Your task to perform on an android device: Go to calendar. Show me events next week Image 0: 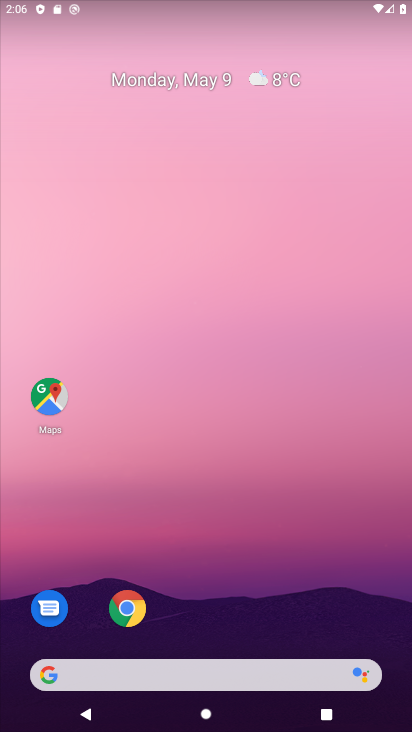
Step 0: drag from (210, 665) to (241, 417)
Your task to perform on an android device: Go to calendar. Show me events next week Image 1: 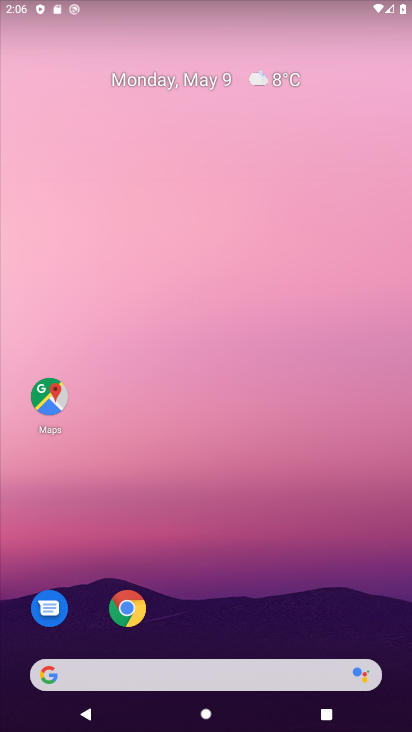
Step 1: drag from (199, 655) to (261, 173)
Your task to perform on an android device: Go to calendar. Show me events next week Image 2: 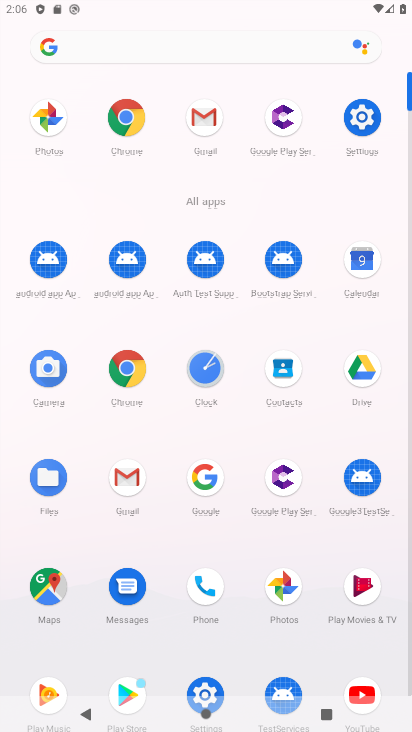
Step 2: drag from (135, 657) to (181, 525)
Your task to perform on an android device: Go to calendar. Show me events next week Image 3: 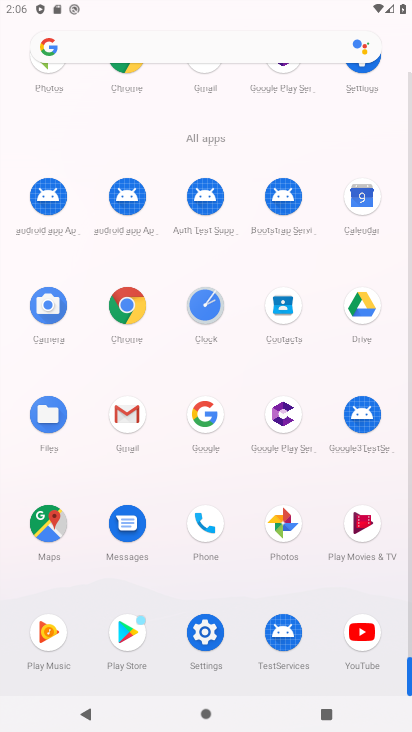
Step 3: click (365, 193)
Your task to perform on an android device: Go to calendar. Show me events next week Image 4: 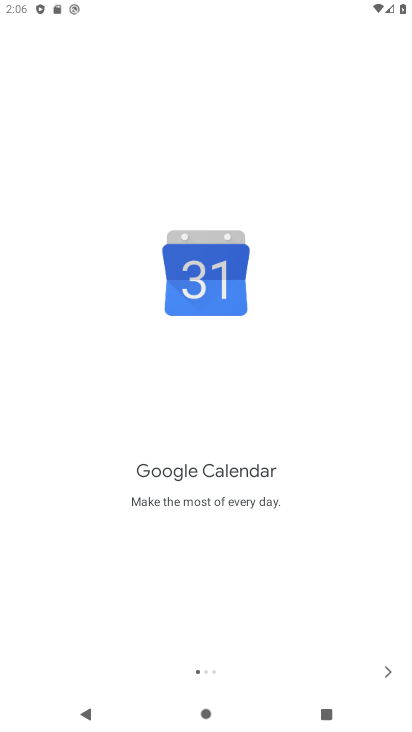
Step 4: click (388, 672)
Your task to perform on an android device: Go to calendar. Show me events next week Image 5: 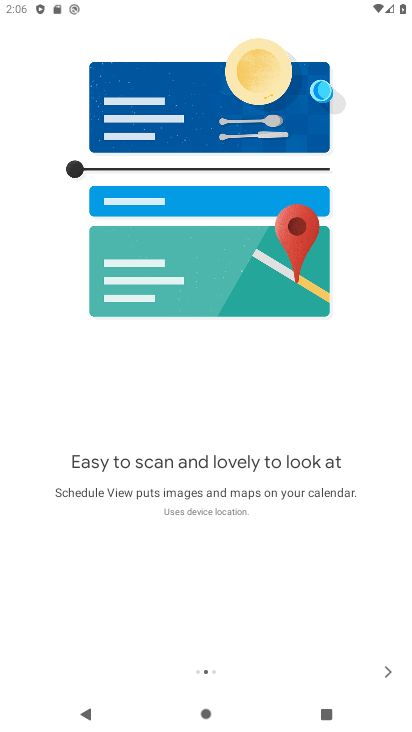
Step 5: click (388, 672)
Your task to perform on an android device: Go to calendar. Show me events next week Image 6: 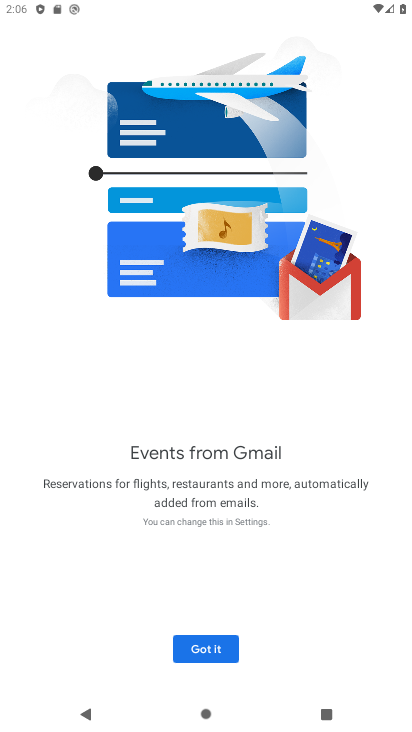
Step 6: click (388, 672)
Your task to perform on an android device: Go to calendar. Show me events next week Image 7: 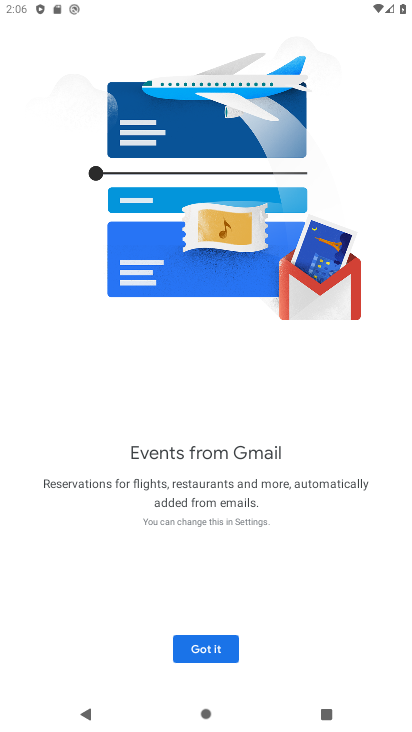
Step 7: click (221, 640)
Your task to perform on an android device: Go to calendar. Show me events next week Image 8: 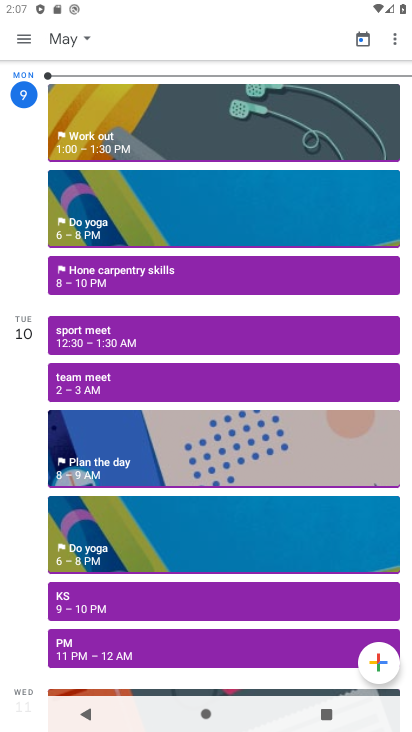
Step 8: click (67, 38)
Your task to perform on an android device: Go to calendar. Show me events next week Image 9: 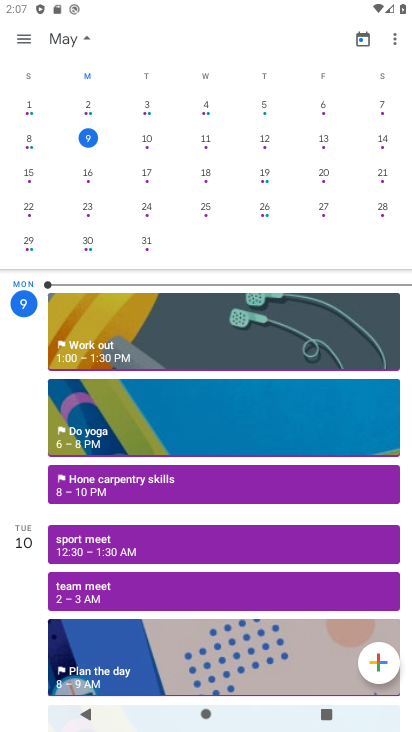
Step 9: click (34, 174)
Your task to perform on an android device: Go to calendar. Show me events next week Image 10: 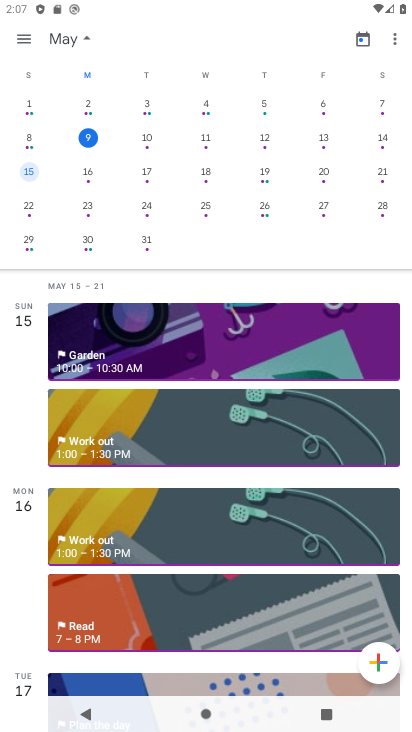
Step 10: task complete